Your task to perform on an android device: Open the calendar app, open the side menu, and click the "Day" option Image 0: 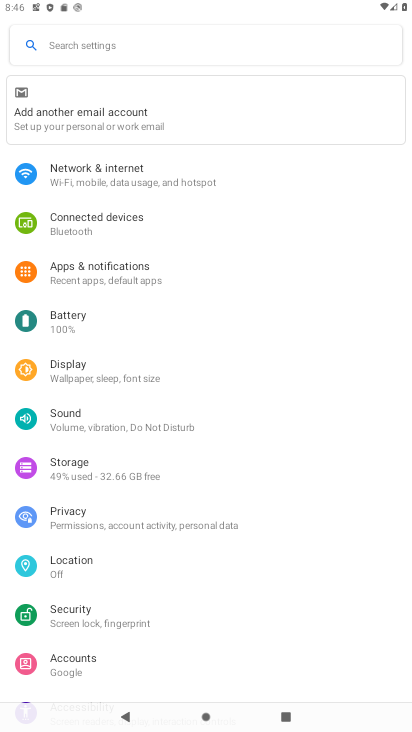
Step 0: press home button
Your task to perform on an android device: Open the calendar app, open the side menu, and click the "Day" option Image 1: 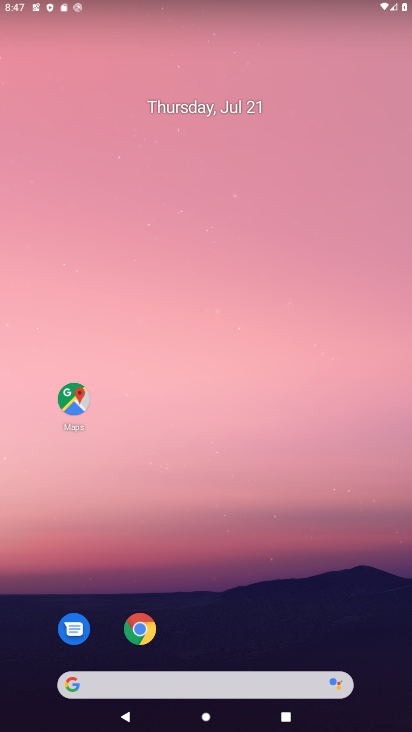
Step 1: click (241, 103)
Your task to perform on an android device: Open the calendar app, open the side menu, and click the "Day" option Image 2: 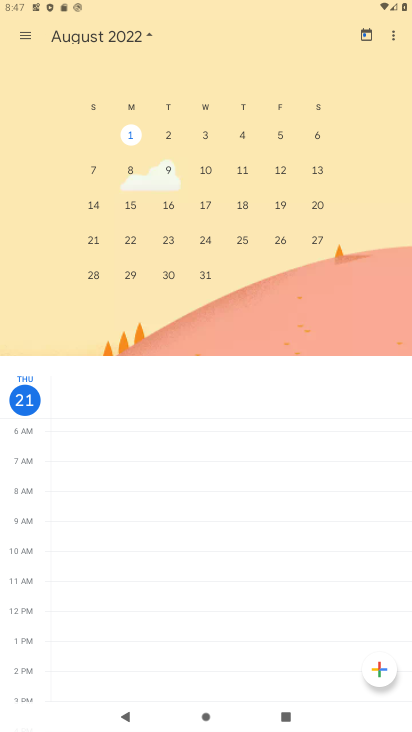
Step 2: click (241, 103)
Your task to perform on an android device: Open the calendar app, open the side menu, and click the "Day" option Image 3: 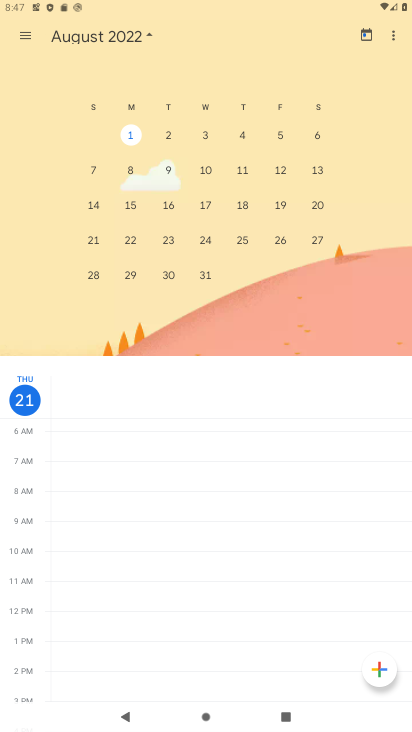
Step 3: click (23, 39)
Your task to perform on an android device: Open the calendar app, open the side menu, and click the "Day" option Image 4: 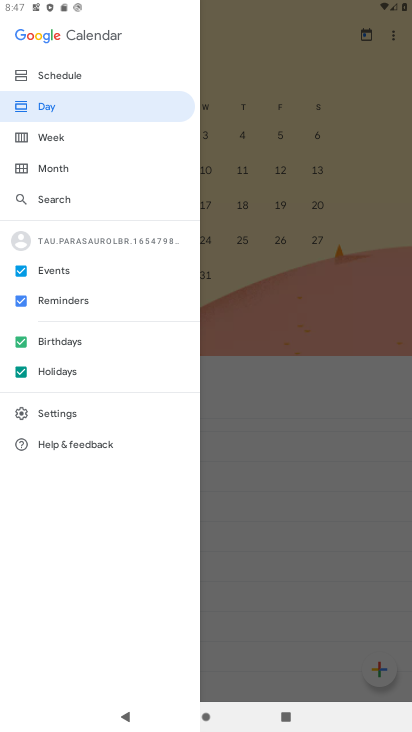
Step 4: click (61, 105)
Your task to perform on an android device: Open the calendar app, open the side menu, and click the "Day" option Image 5: 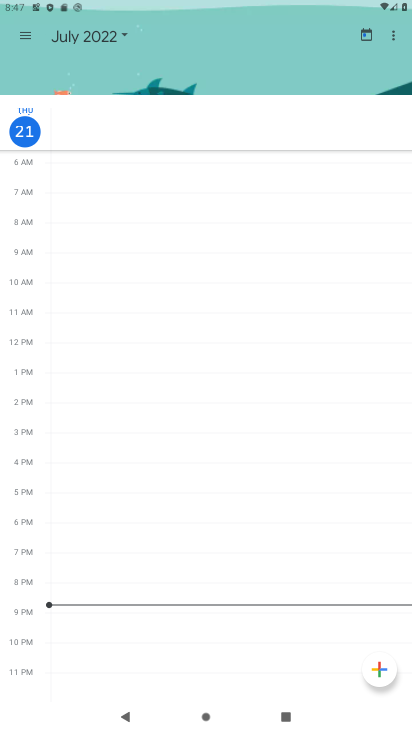
Step 5: task complete